Your task to perform on an android device: install app "Move to iOS" Image 0: 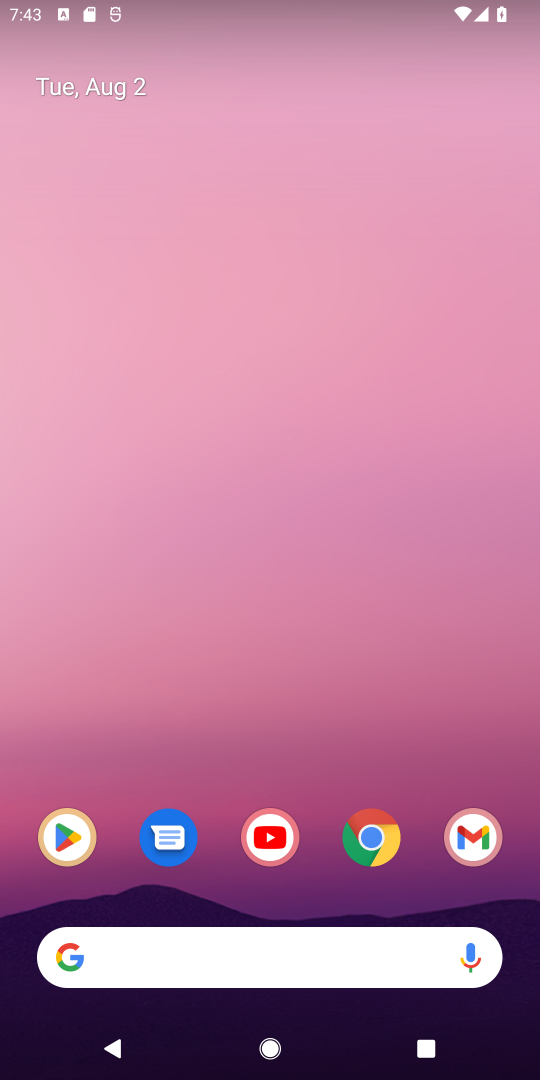
Step 0: click (66, 842)
Your task to perform on an android device: install app "Move to iOS" Image 1: 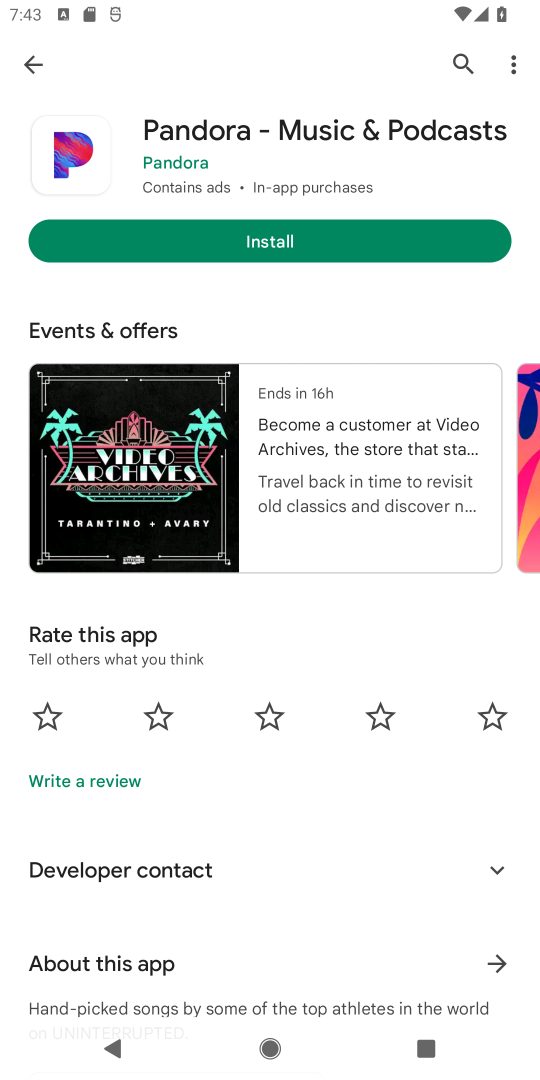
Step 1: click (455, 65)
Your task to perform on an android device: install app "Move to iOS" Image 2: 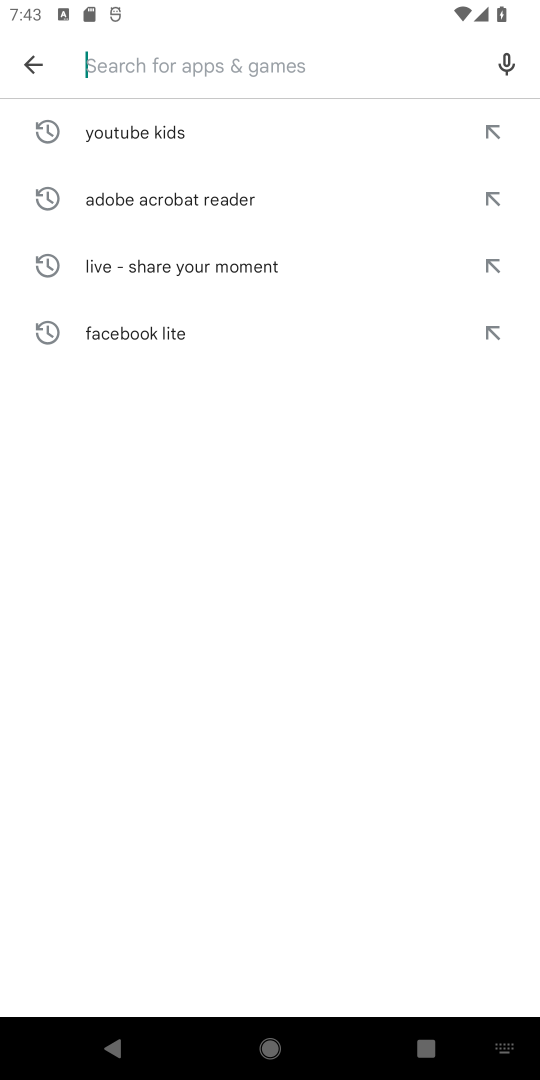
Step 2: type "Move to iOS"
Your task to perform on an android device: install app "Move to iOS" Image 3: 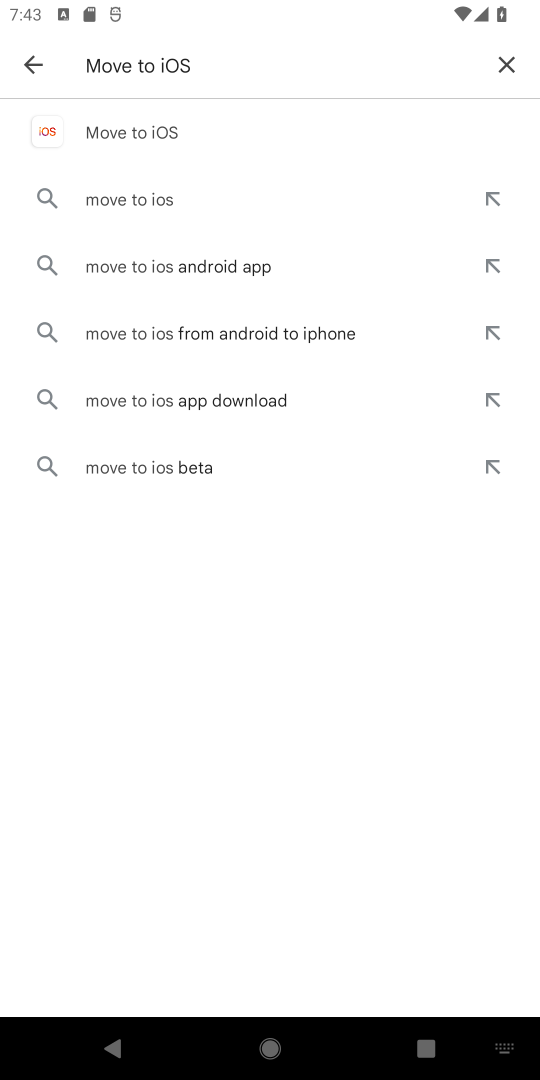
Step 3: click (127, 141)
Your task to perform on an android device: install app "Move to iOS" Image 4: 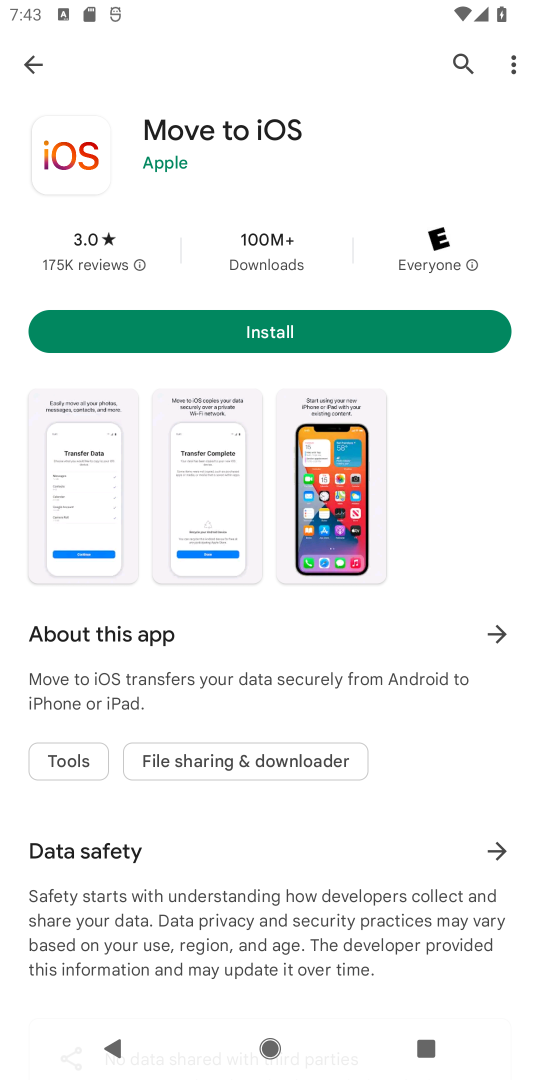
Step 4: click (275, 339)
Your task to perform on an android device: install app "Move to iOS" Image 5: 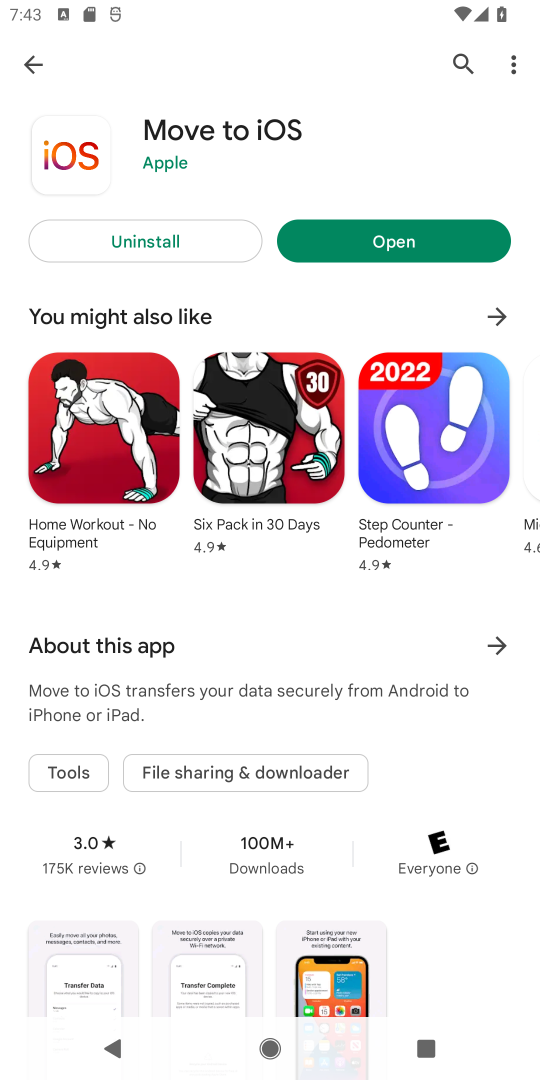
Step 5: task complete